Your task to perform on an android device: Search for razer blade on ebay, select the first entry, add it to the cart, then select checkout. Image 0: 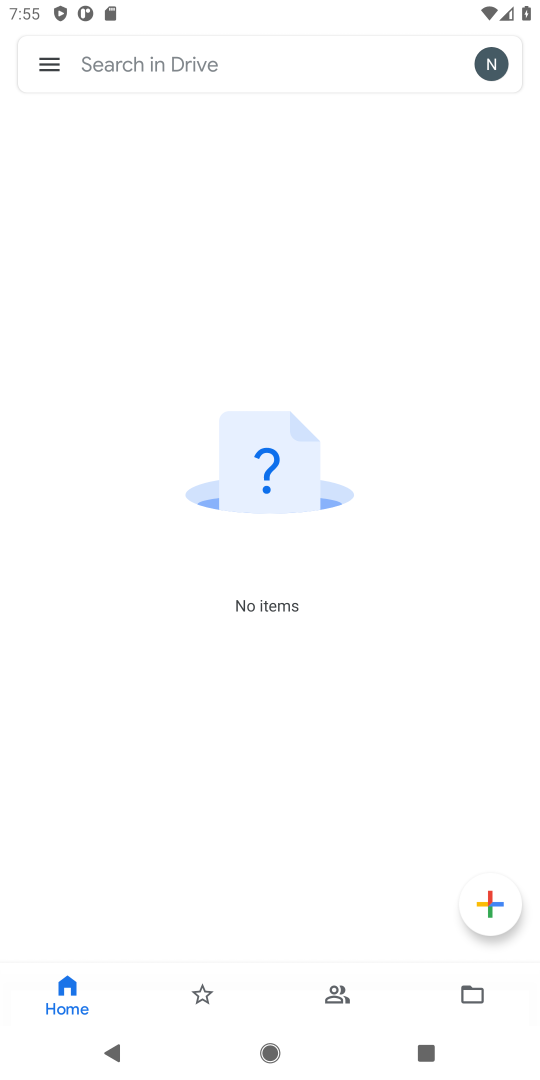
Step 0: press home button
Your task to perform on an android device: Search for razer blade on ebay, select the first entry, add it to the cart, then select checkout. Image 1: 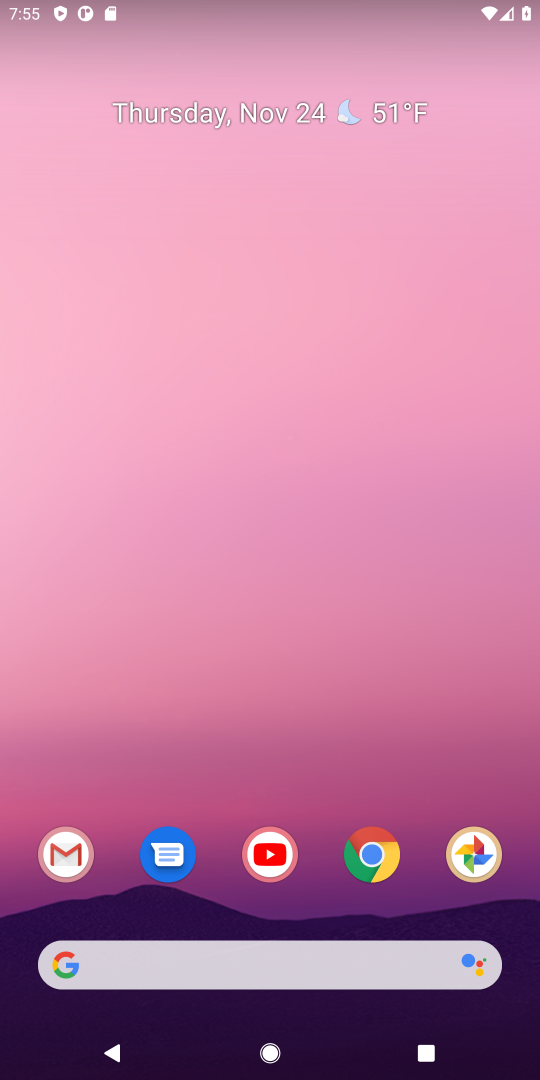
Step 1: click (373, 857)
Your task to perform on an android device: Search for razer blade on ebay, select the first entry, add it to the cart, then select checkout. Image 2: 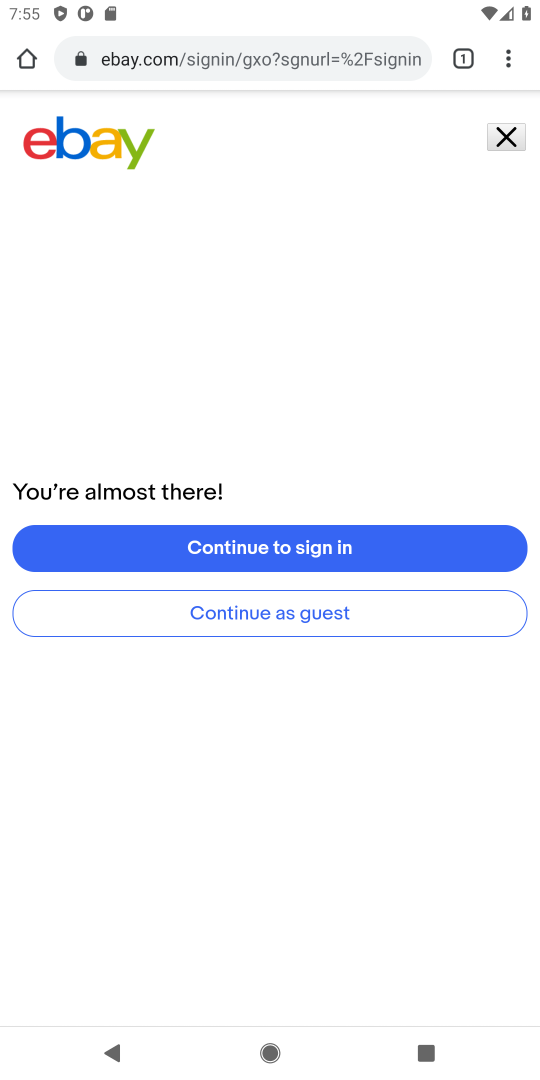
Step 2: click (507, 144)
Your task to perform on an android device: Search for razer blade on ebay, select the first entry, add it to the cart, then select checkout. Image 3: 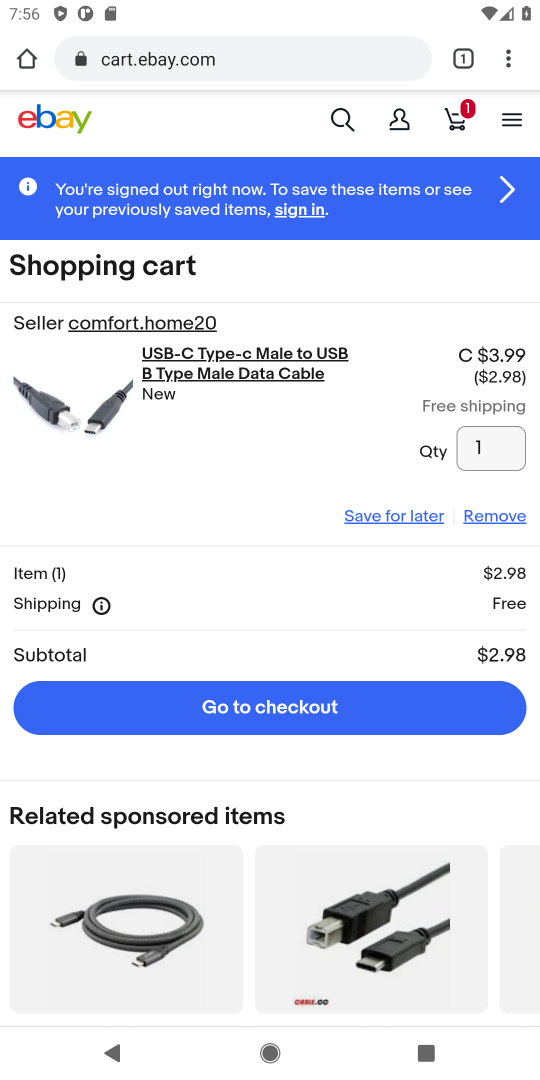
Step 3: click (347, 115)
Your task to perform on an android device: Search for razer blade on ebay, select the first entry, add it to the cart, then select checkout. Image 4: 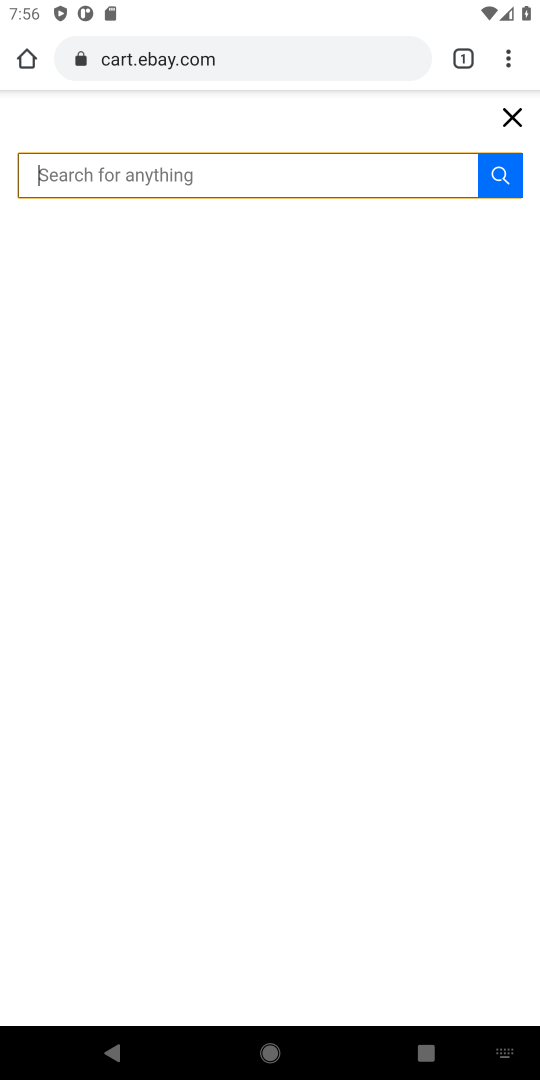
Step 4: type "razer blade"
Your task to perform on an android device: Search for razer blade on ebay, select the first entry, add it to the cart, then select checkout. Image 5: 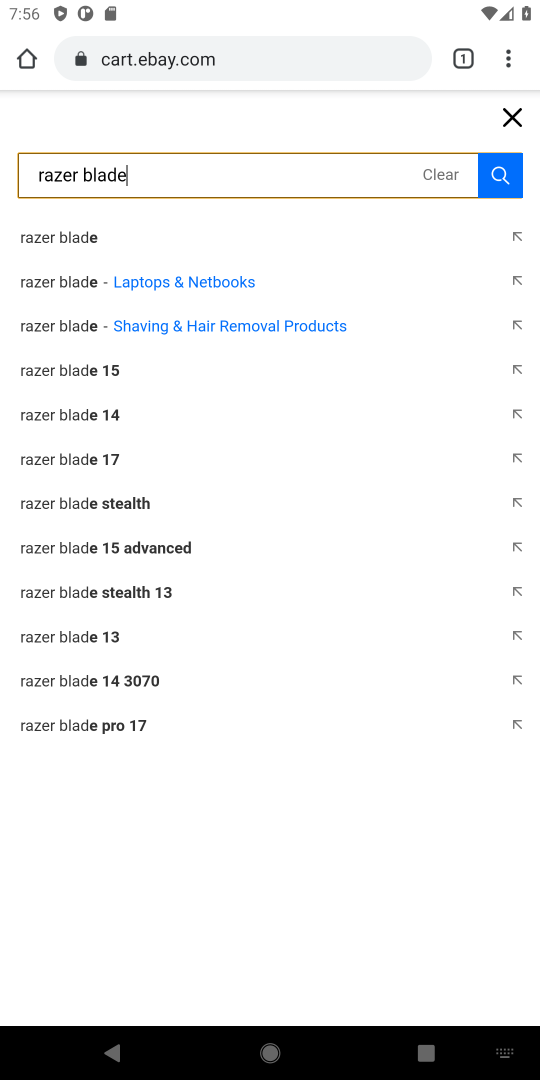
Step 5: click (57, 240)
Your task to perform on an android device: Search for razer blade on ebay, select the first entry, add it to the cart, then select checkout. Image 6: 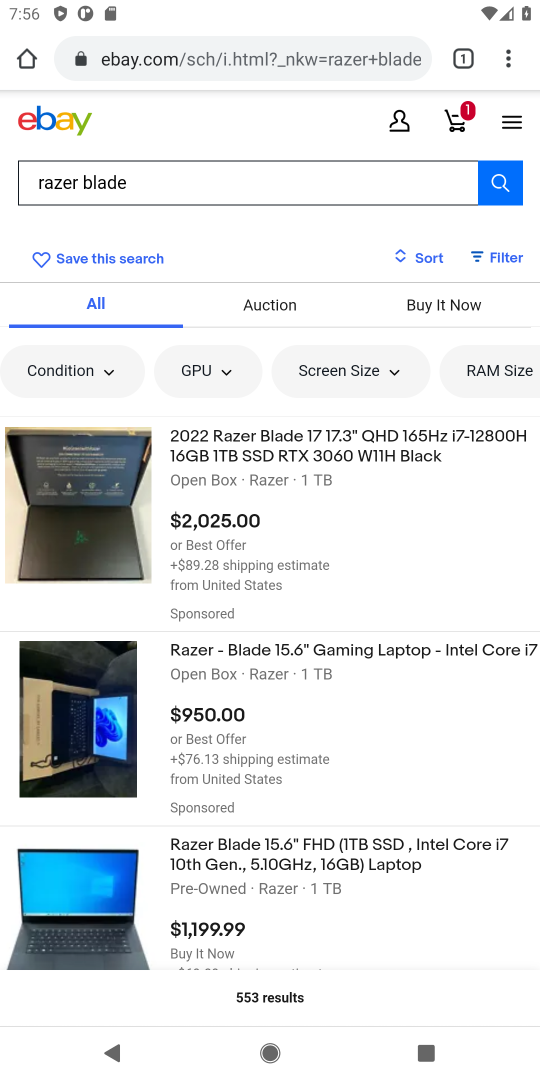
Step 6: click (68, 519)
Your task to perform on an android device: Search for razer blade on ebay, select the first entry, add it to the cart, then select checkout. Image 7: 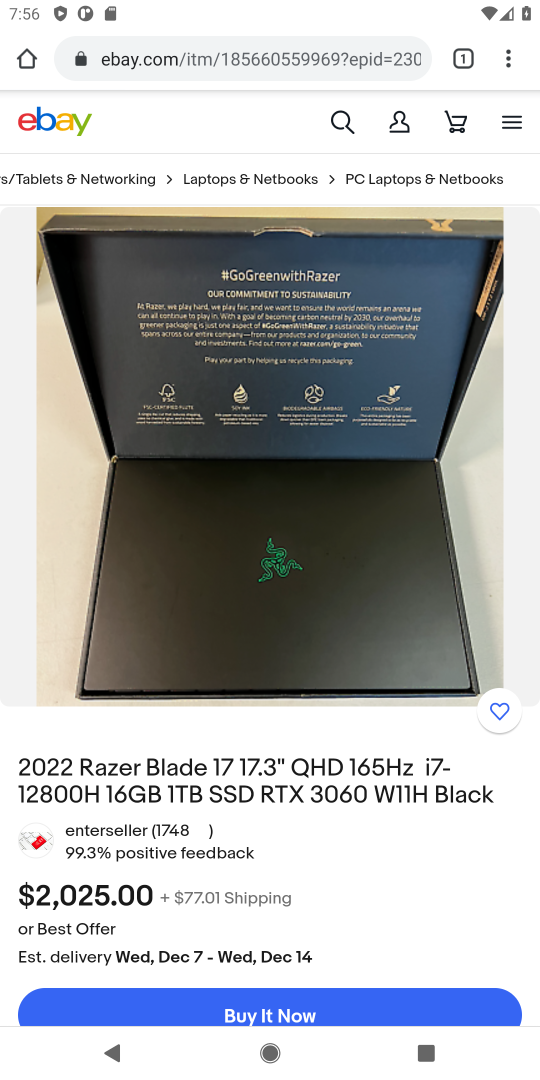
Step 7: drag from (235, 771) to (232, 447)
Your task to perform on an android device: Search for razer blade on ebay, select the first entry, add it to the cart, then select checkout. Image 8: 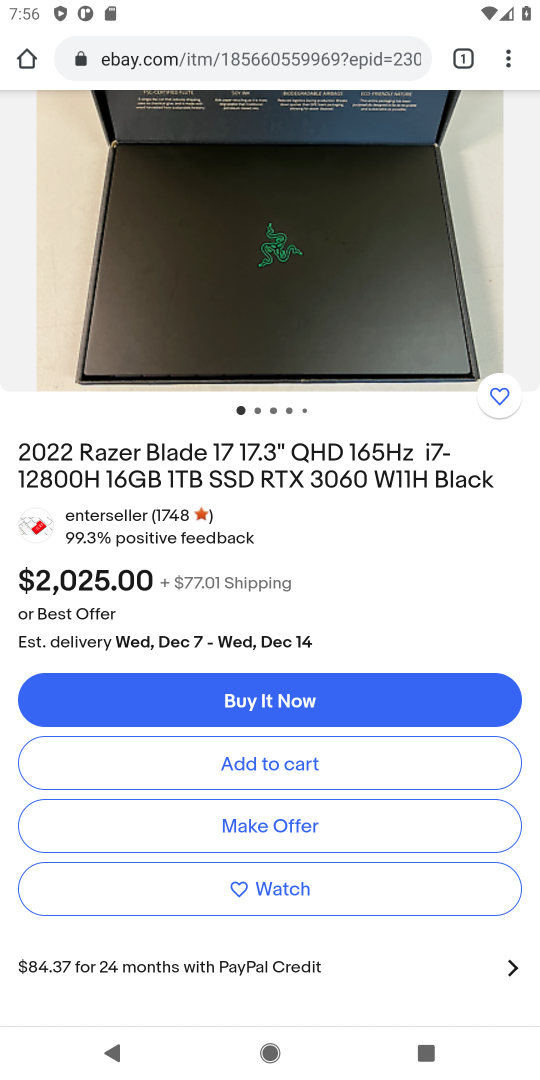
Step 8: click (249, 765)
Your task to perform on an android device: Search for razer blade on ebay, select the first entry, add it to the cart, then select checkout. Image 9: 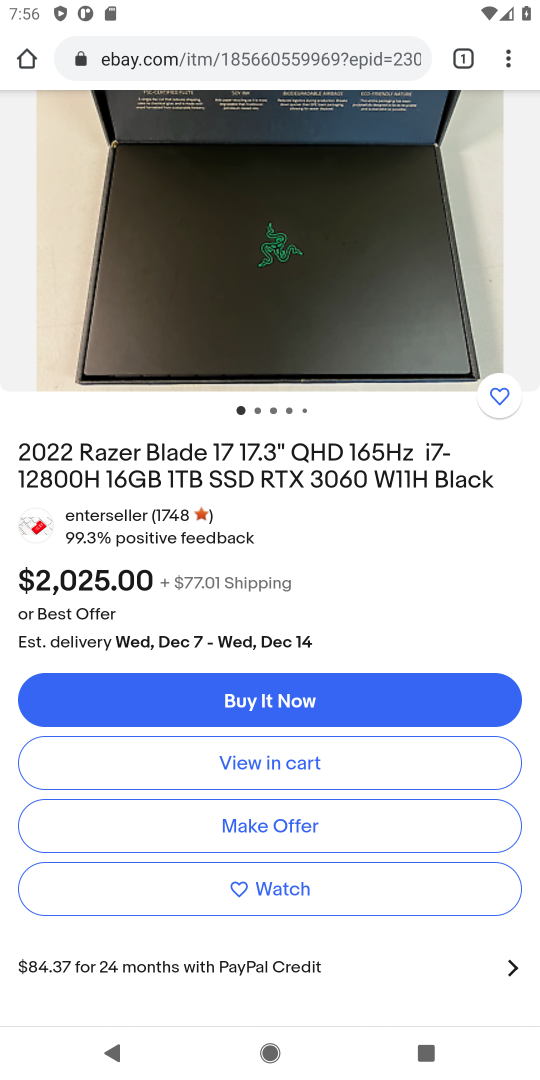
Step 9: click (249, 765)
Your task to perform on an android device: Search for razer blade on ebay, select the first entry, add it to the cart, then select checkout. Image 10: 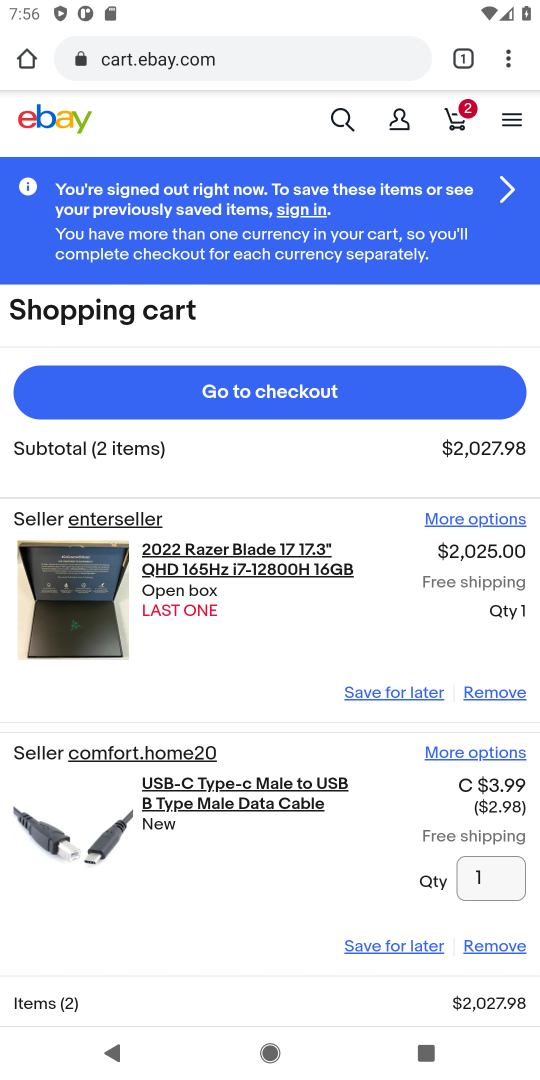
Step 10: click (229, 401)
Your task to perform on an android device: Search for razer blade on ebay, select the first entry, add it to the cart, then select checkout. Image 11: 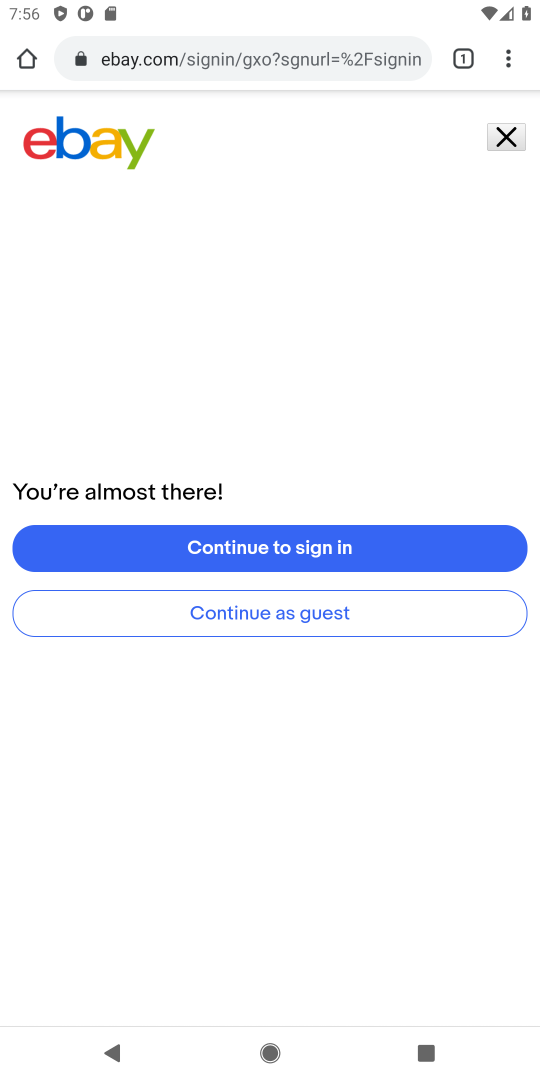
Step 11: task complete